Your task to perform on an android device: toggle improve location accuracy Image 0: 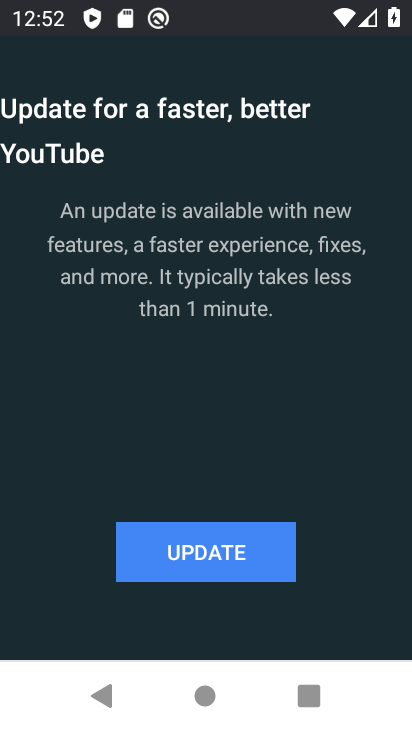
Step 0: press back button
Your task to perform on an android device: toggle improve location accuracy Image 1: 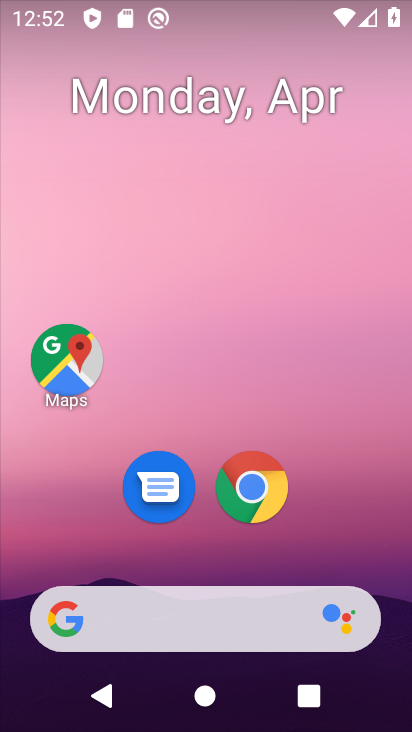
Step 1: drag from (395, 634) to (322, 97)
Your task to perform on an android device: toggle improve location accuracy Image 2: 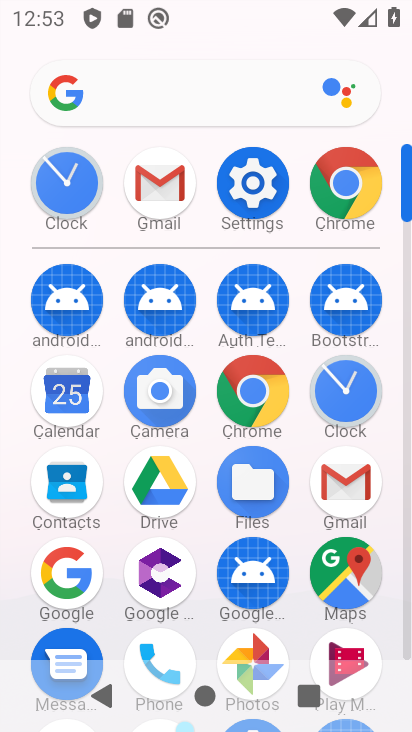
Step 2: click (263, 190)
Your task to perform on an android device: toggle improve location accuracy Image 3: 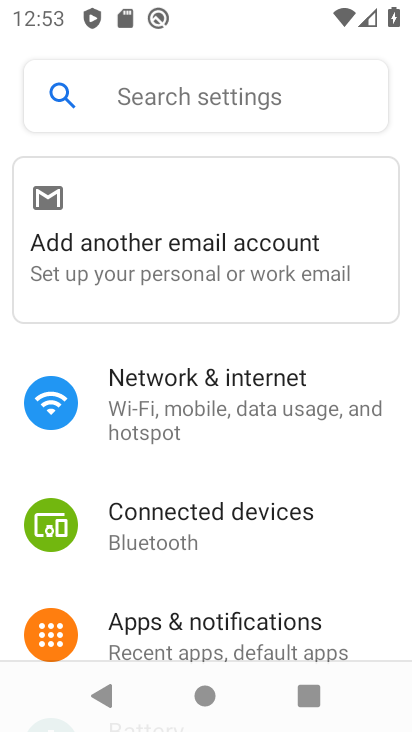
Step 3: drag from (128, 613) to (229, 410)
Your task to perform on an android device: toggle improve location accuracy Image 4: 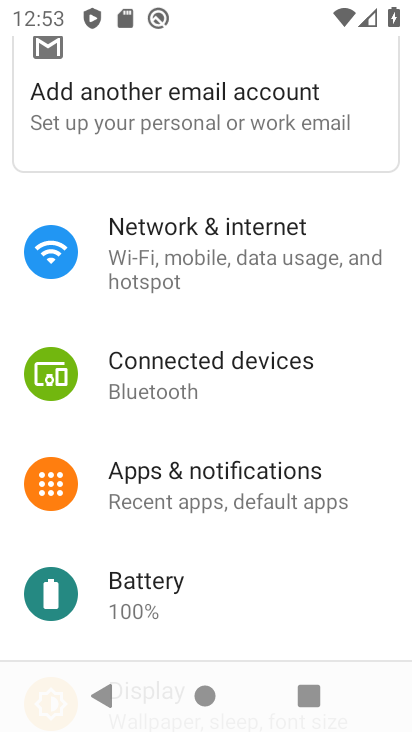
Step 4: drag from (167, 582) to (235, 192)
Your task to perform on an android device: toggle improve location accuracy Image 5: 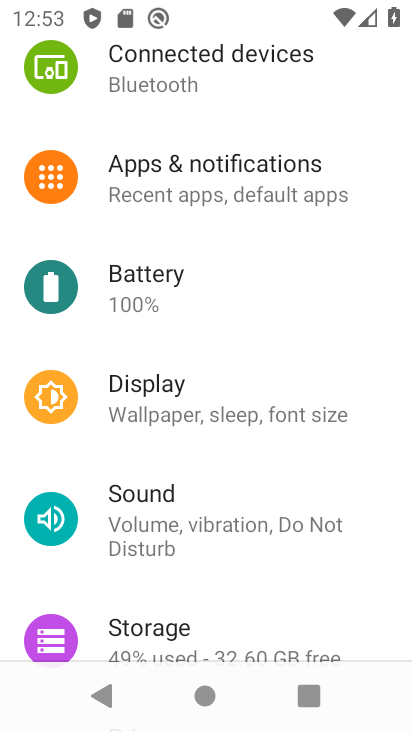
Step 5: drag from (176, 587) to (203, 174)
Your task to perform on an android device: toggle improve location accuracy Image 6: 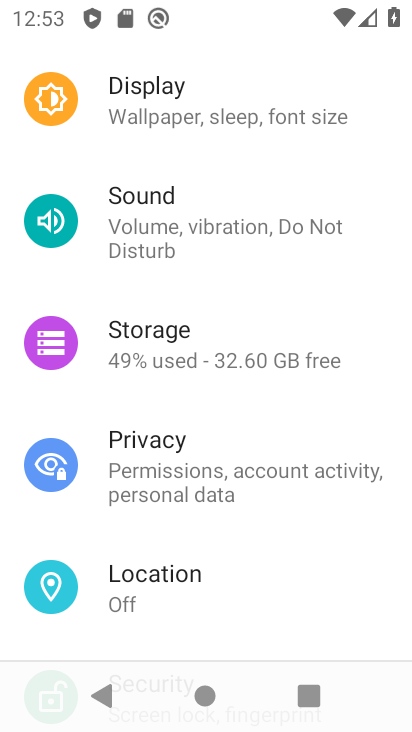
Step 6: click (180, 591)
Your task to perform on an android device: toggle improve location accuracy Image 7: 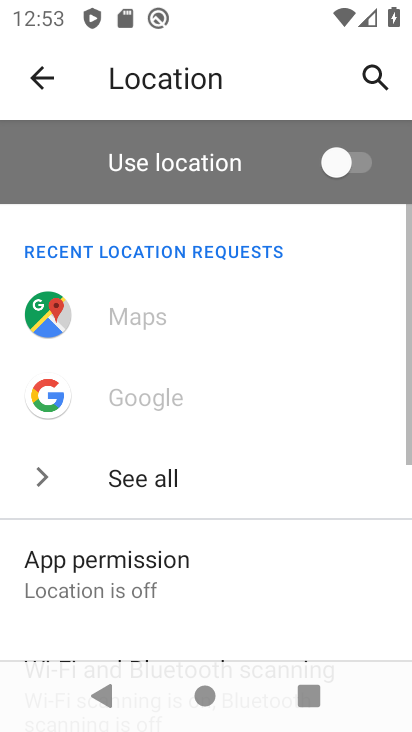
Step 7: drag from (180, 591) to (238, 152)
Your task to perform on an android device: toggle improve location accuracy Image 8: 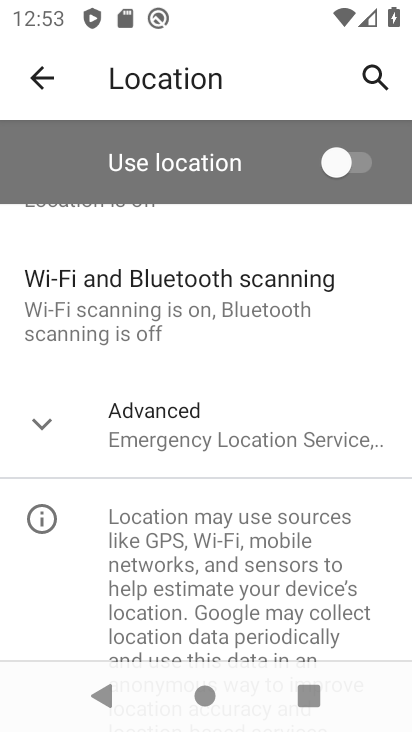
Step 8: click (23, 423)
Your task to perform on an android device: toggle improve location accuracy Image 9: 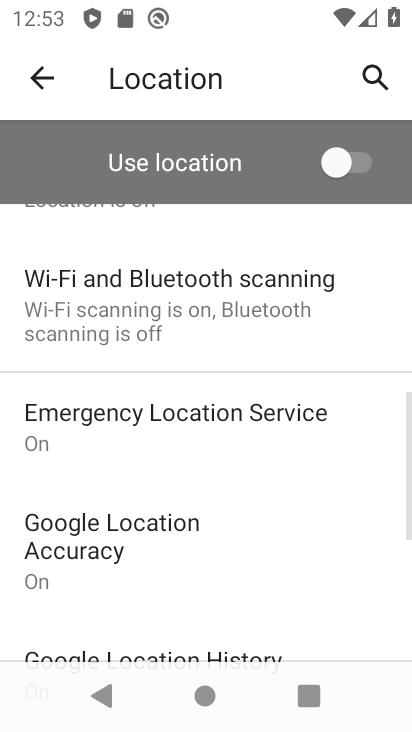
Step 9: click (128, 540)
Your task to perform on an android device: toggle improve location accuracy Image 10: 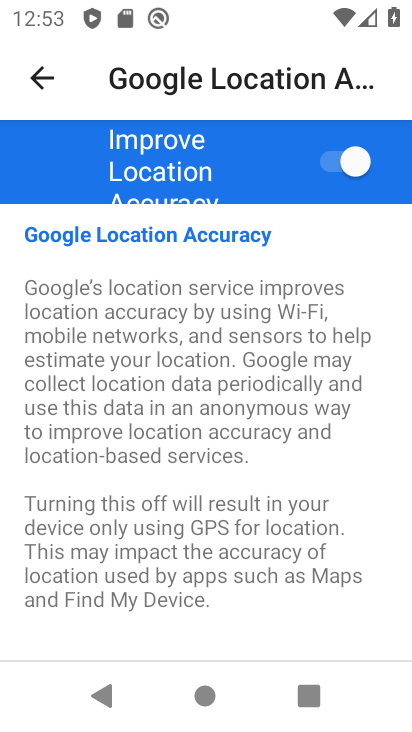
Step 10: click (333, 154)
Your task to perform on an android device: toggle improve location accuracy Image 11: 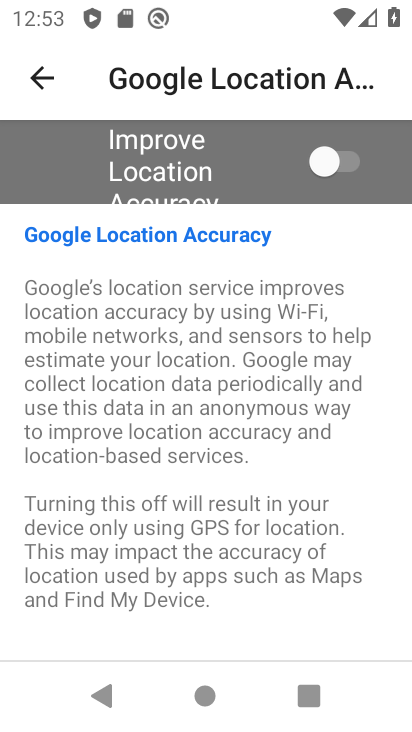
Step 11: task complete